Your task to perform on an android device: add a contact in the contacts app Image 0: 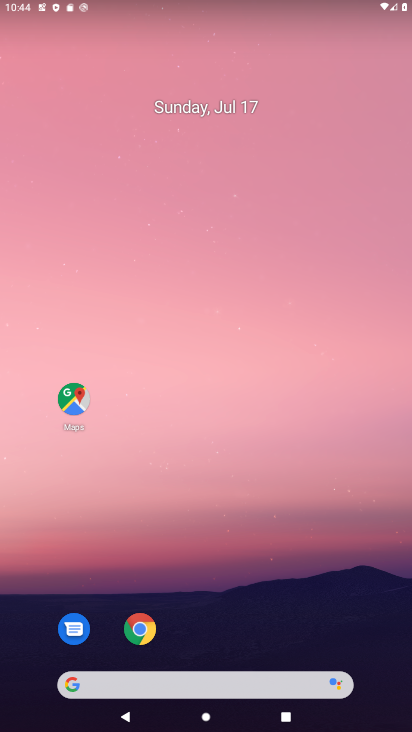
Step 0: drag from (358, 577) to (380, 48)
Your task to perform on an android device: add a contact in the contacts app Image 1: 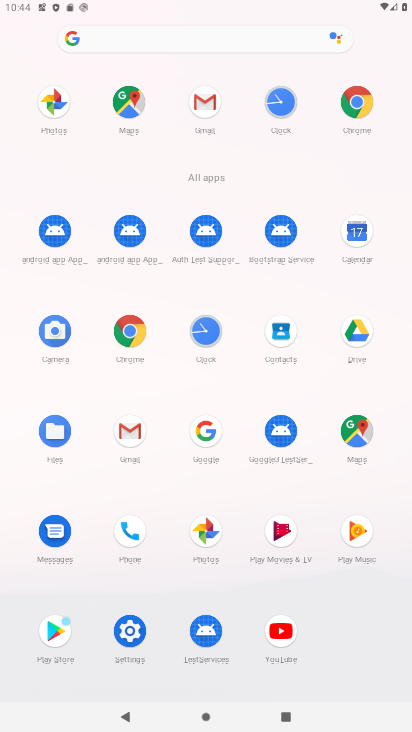
Step 1: click (277, 322)
Your task to perform on an android device: add a contact in the contacts app Image 2: 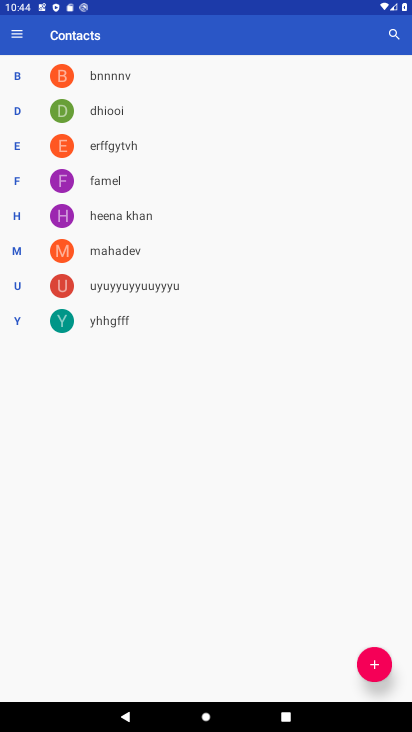
Step 2: click (373, 671)
Your task to perform on an android device: add a contact in the contacts app Image 3: 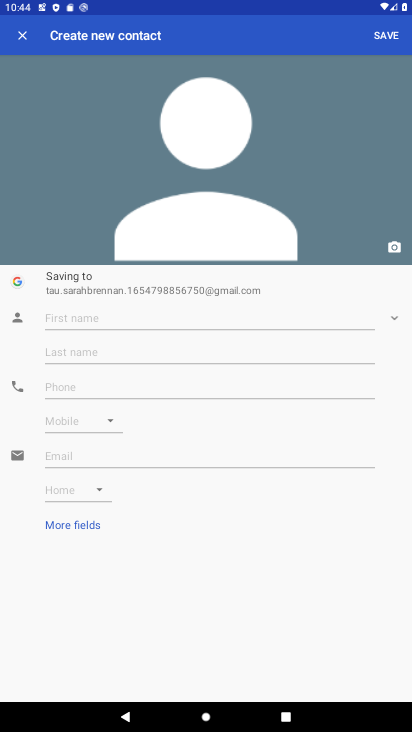
Step 3: click (112, 316)
Your task to perform on an android device: add a contact in the contacts app Image 4: 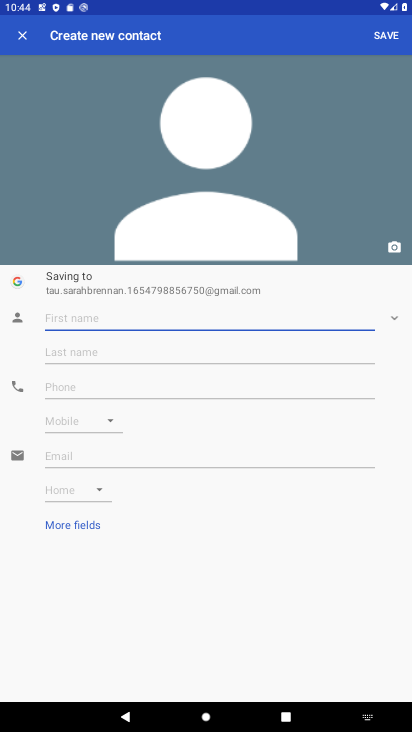
Step 4: type "vgj"
Your task to perform on an android device: add a contact in the contacts app Image 5: 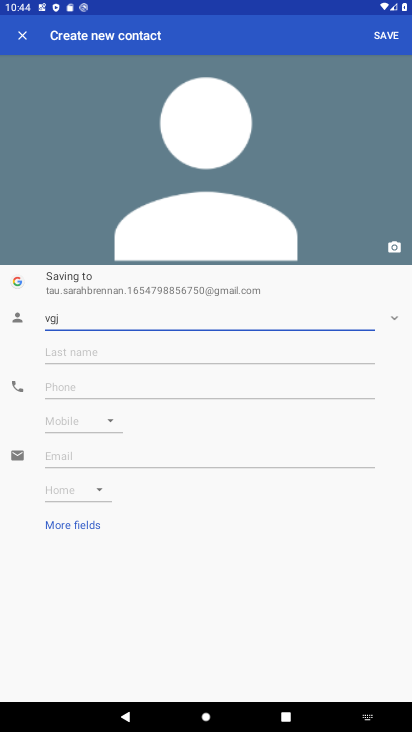
Step 5: click (130, 390)
Your task to perform on an android device: add a contact in the contacts app Image 6: 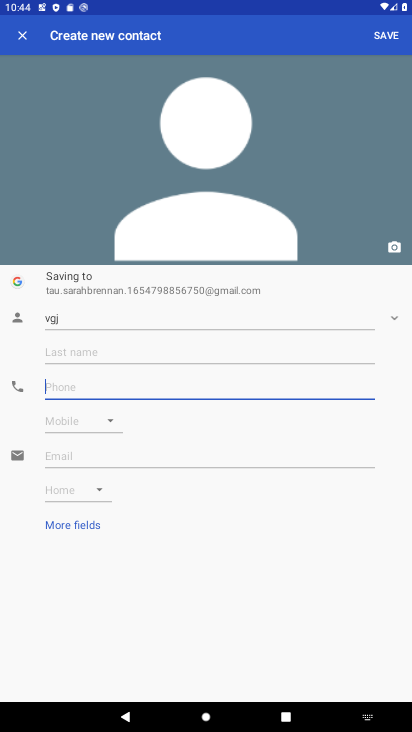
Step 6: type "5678904322"
Your task to perform on an android device: add a contact in the contacts app Image 7: 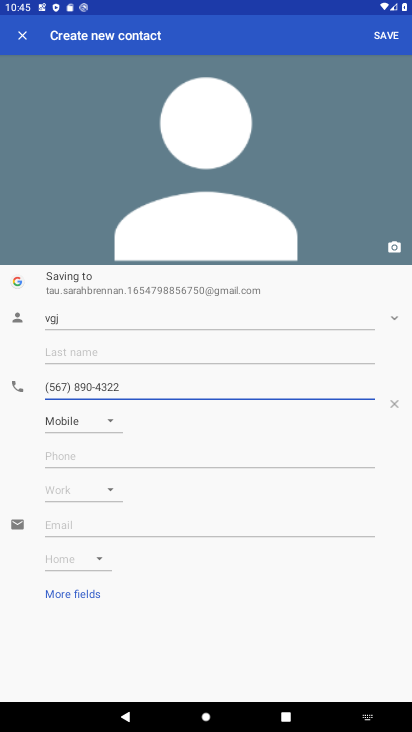
Step 7: click (390, 36)
Your task to perform on an android device: add a contact in the contacts app Image 8: 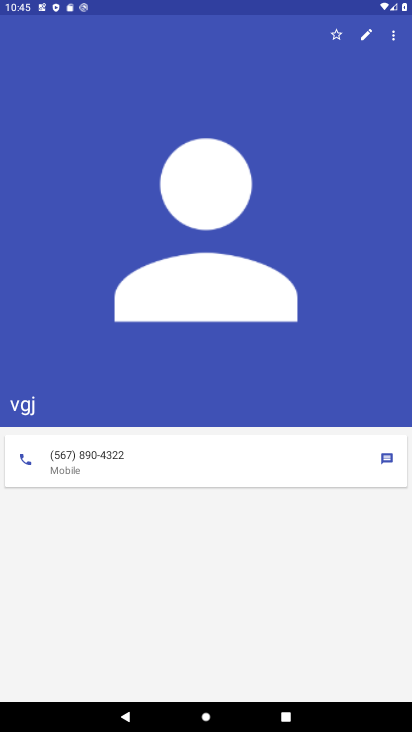
Step 8: task complete